Your task to perform on an android device: Go to display settings Image 0: 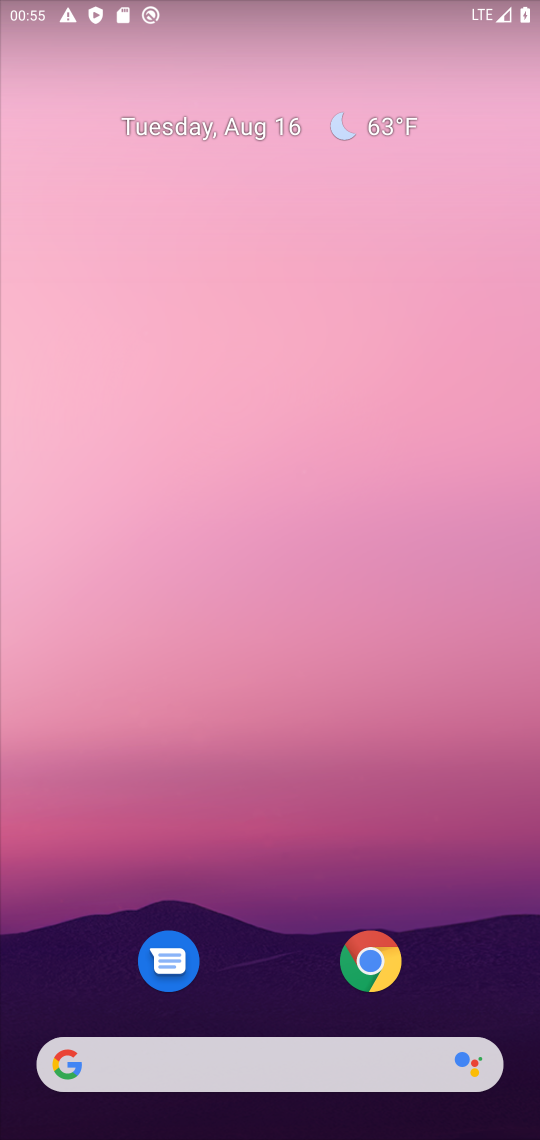
Step 0: press home button
Your task to perform on an android device: Go to display settings Image 1: 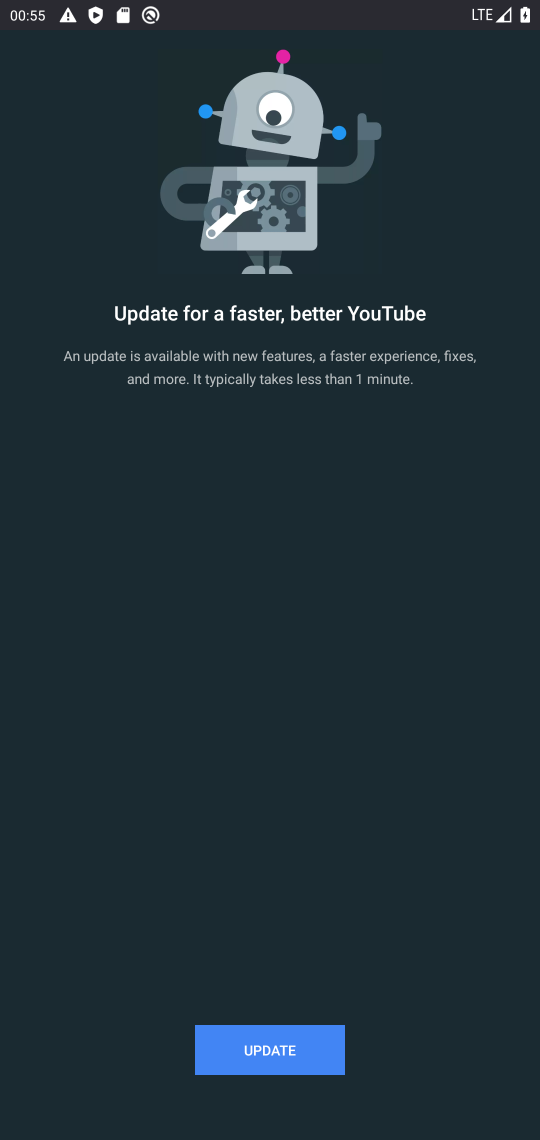
Step 1: drag from (321, 967) to (353, 181)
Your task to perform on an android device: Go to display settings Image 2: 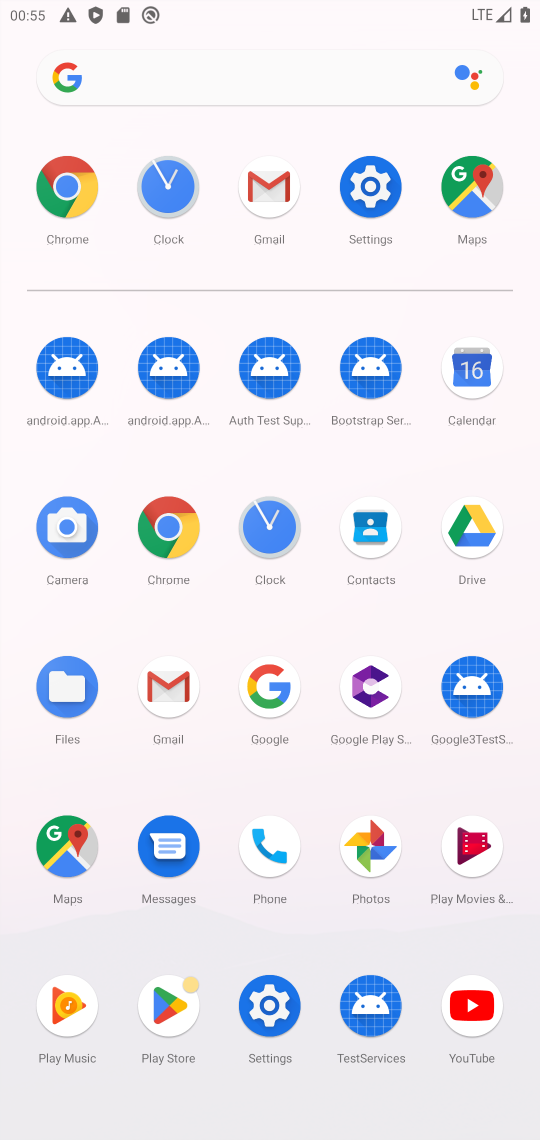
Step 2: click (379, 191)
Your task to perform on an android device: Go to display settings Image 3: 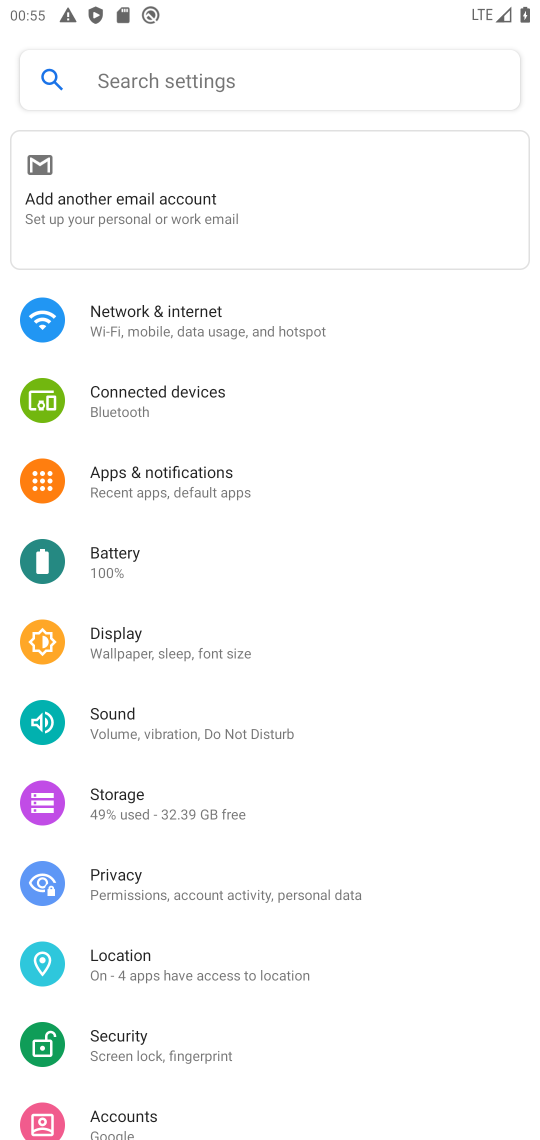
Step 3: click (78, 647)
Your task to perform on an android device: Go to display settings Image 4: 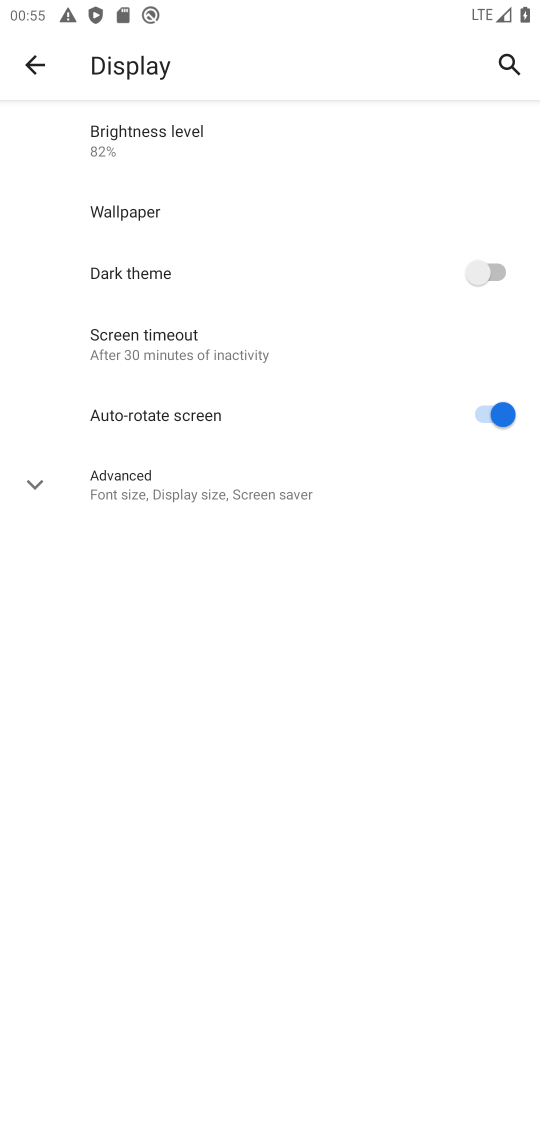
Step 4: task complete